Your task to perform on an android device: add a contact in the contacts app Image 0: 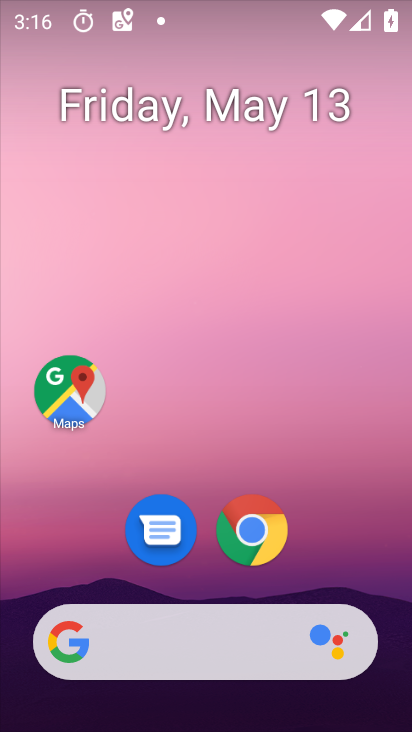
Step 0: drag from (335, 530) to (314, 47)
Your task to perform on an android device: add a contact in the contacts app Image 1: 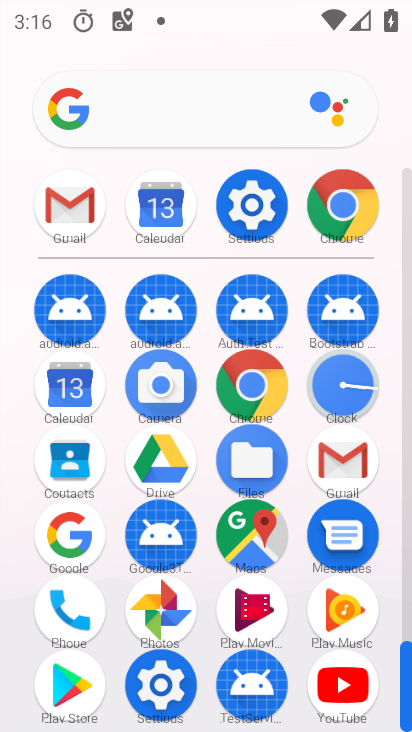
Step 1: click (78, 456)
Your task to perform on an android device: add a contact in the contacts app Image 2: 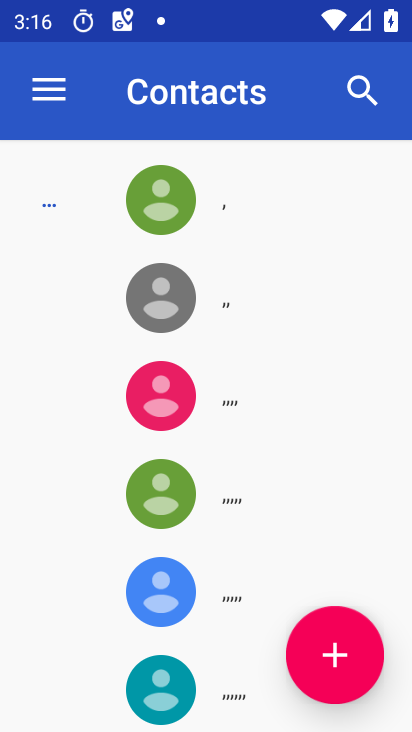
Step 2: click (345, 655)
Your task to perform on an android device: add a contact in the contacts app Image 3: 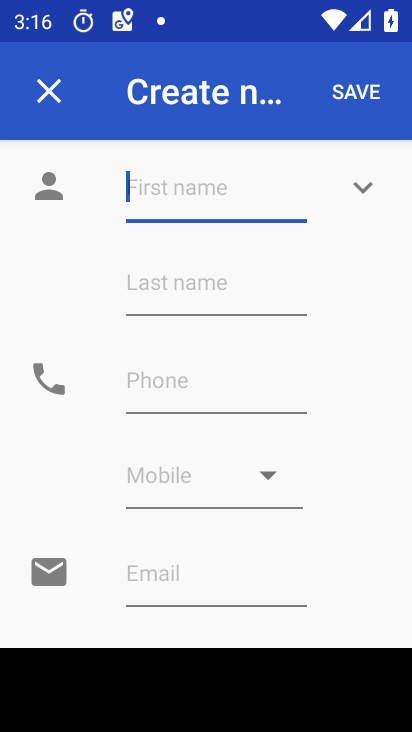
Step 3: click (226, 183)
Your task to perform on an android device: add a contact in the contacts app Image 4: 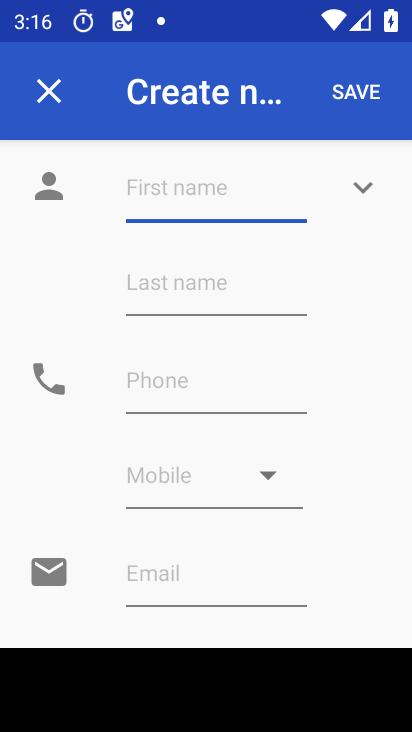
Step 4: type "pushpa"
Your task to perform on an android device: add a contact in the contacts app Image 5: 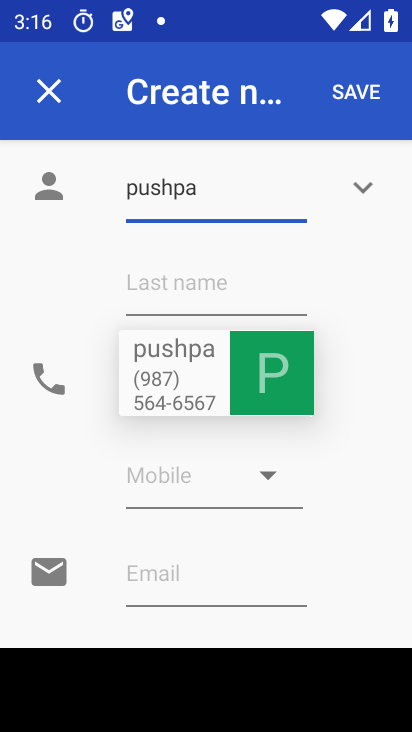
Step 5: type "raj"
Your task to perform on an android device: add a contact in the contacts app Image 6: 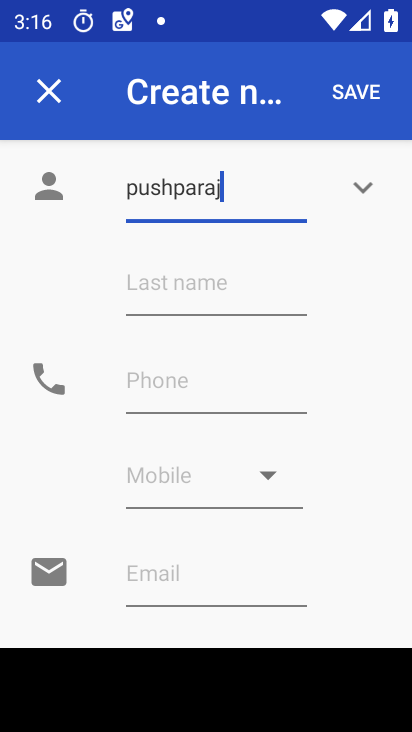
Step 6: click (347, 92)
Your task to perform on an android device: add a contact in the contacts app Image 7: 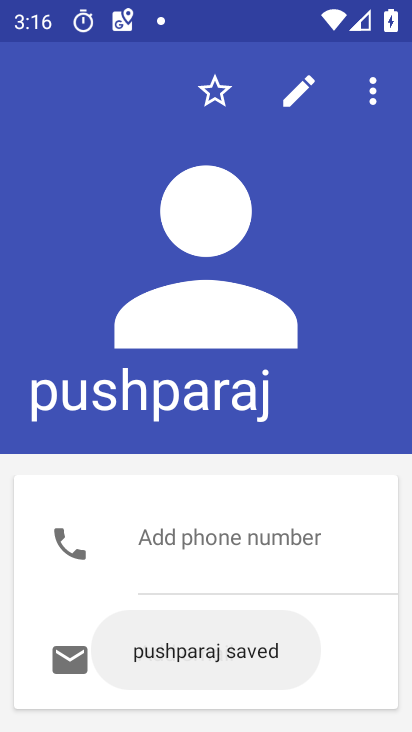
Step 7: task complete